Your task to perform on an android device: Open Google Image 0: 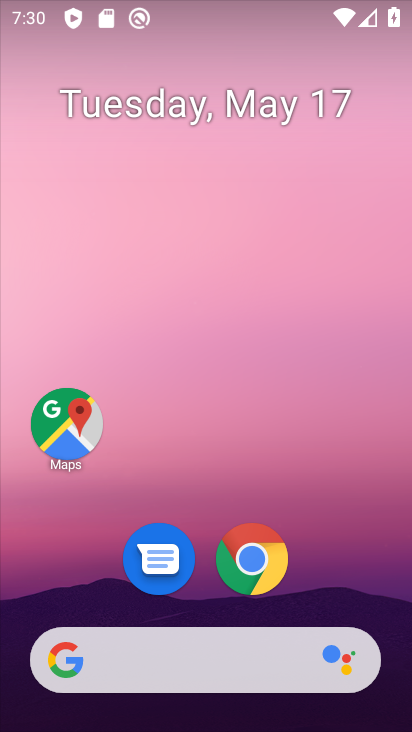
Step 0: drag from (247, 684) to (225, 11)
Your task to perform on an android device: Open Google Image 1: 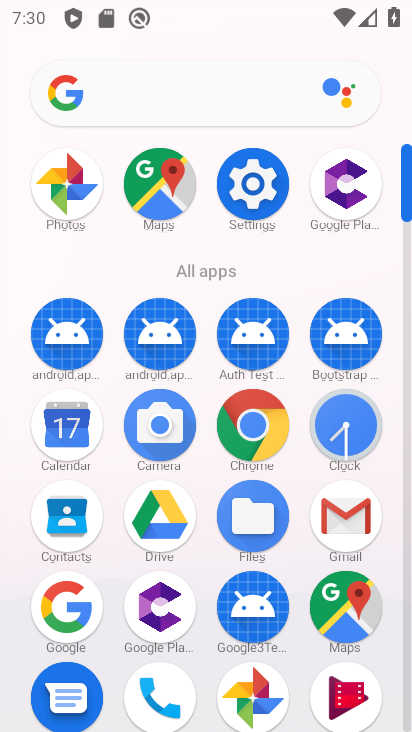
Step 1: click (73, 609)
Your task to perform on an android device: Open Google Image 2: 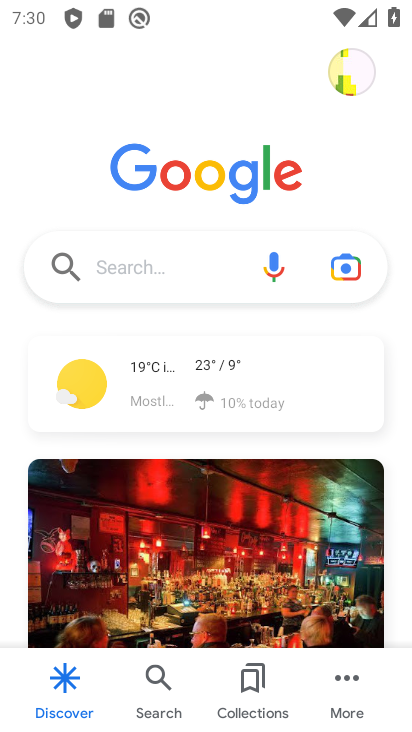
Step 2: task complete